Your task to perform on an android device: allow cookies in the chrome app Image 0: 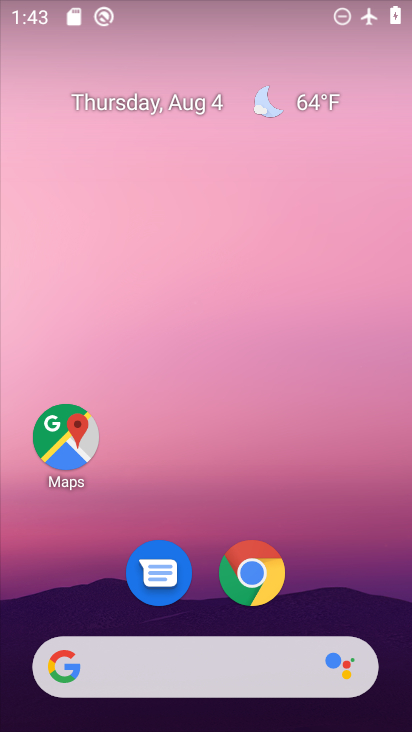
Step 0: drag from (337, 577) to (359, 108)
Your task to perform on an android device: allow cookies in the chrome app Image 1: 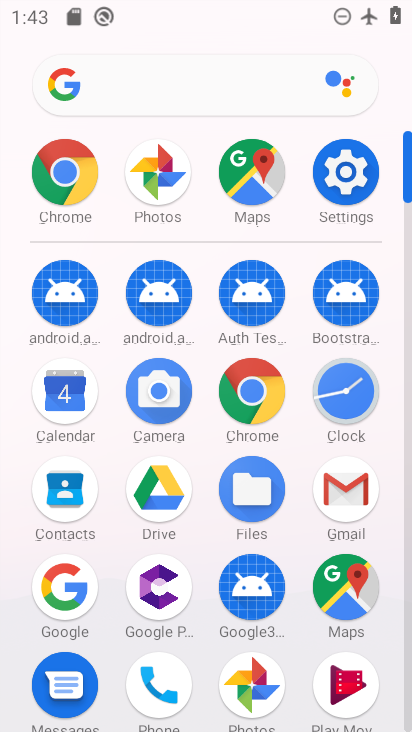
Step 1: click (239, 388)
Your task to perform on an android device: allow cookies in the chrome app Image 2: 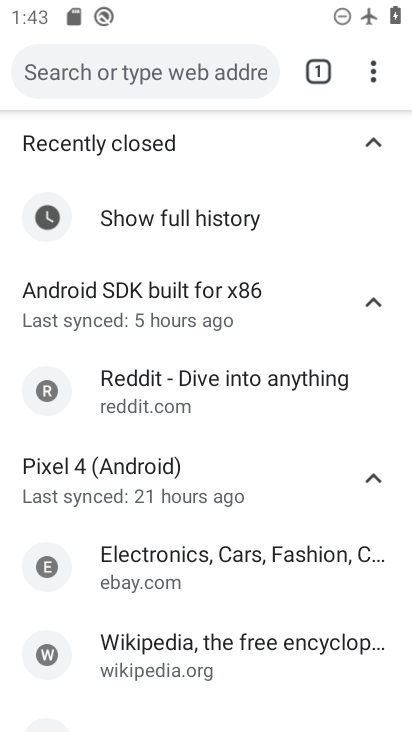
Step 2: drag from (373, 73) to (189, 590)
Your task to perform on an android device: allow cookies in the chrome app Image 3: 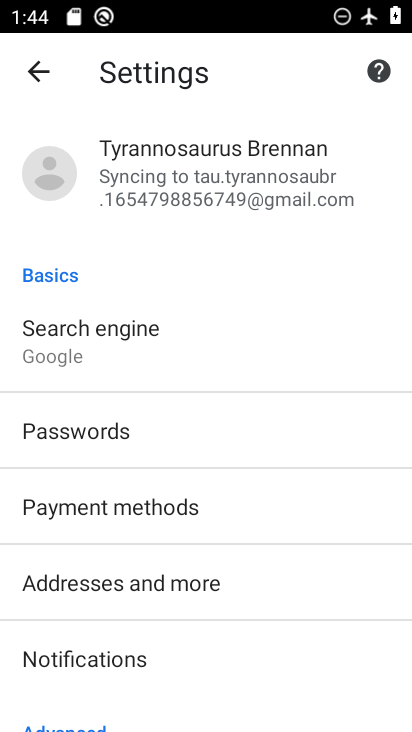
Step 3: drag from (274, 587) to (264, 124)
Your task to perform on an android device: allow cookies in the chrome app Image 4: 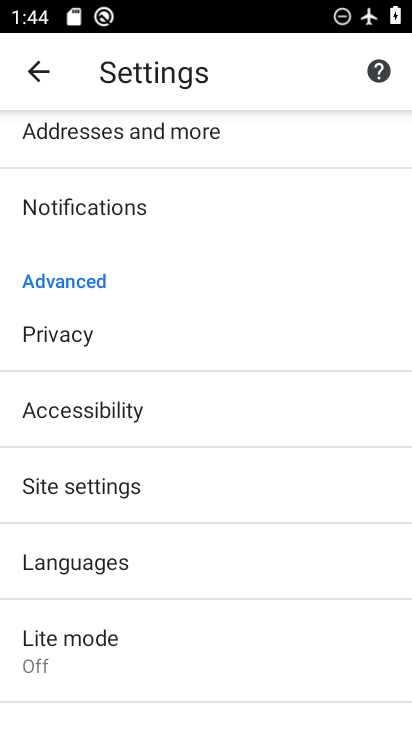
Step 4: click (116, 497)
Your task to perform on an android device: allow cookies in the chrome app Image 5: 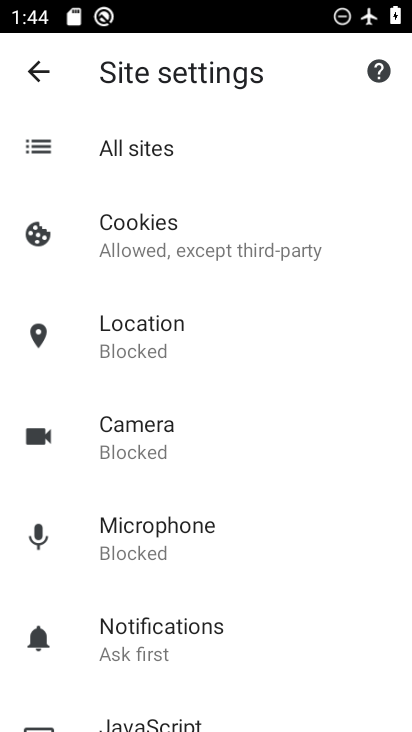
Step 5: click (257, 259)
Your task to perform on an android device: allow cookies in the chrome app Image 6: 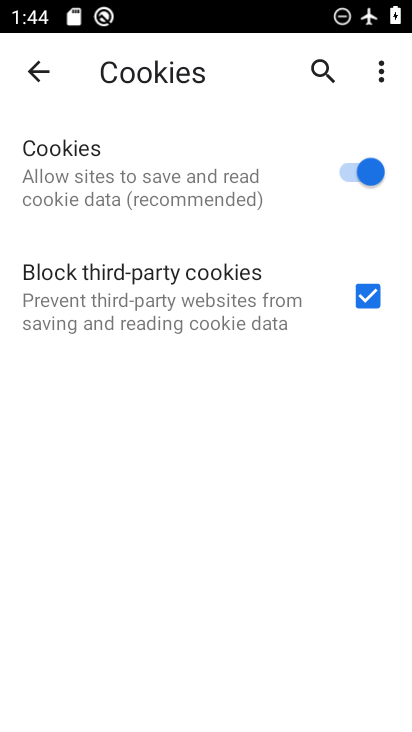
Step 6: task complete